Your task to perform on an android device: turn on javascript in the chrome app Image 0: 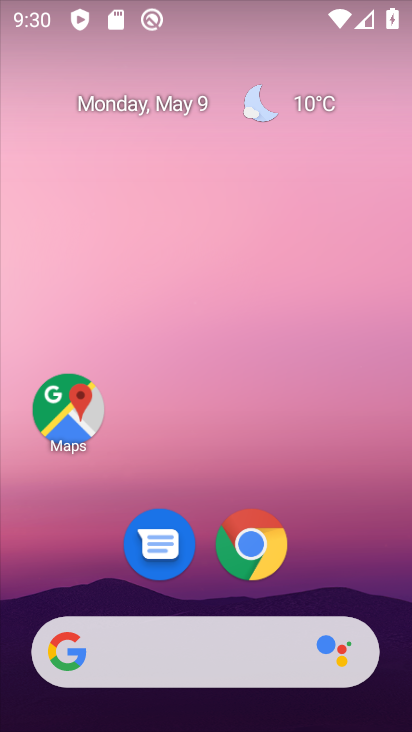
Step 0: click (261, 551)
Your task to perform on an android device: turn on javascript in the chrome app Image 1: 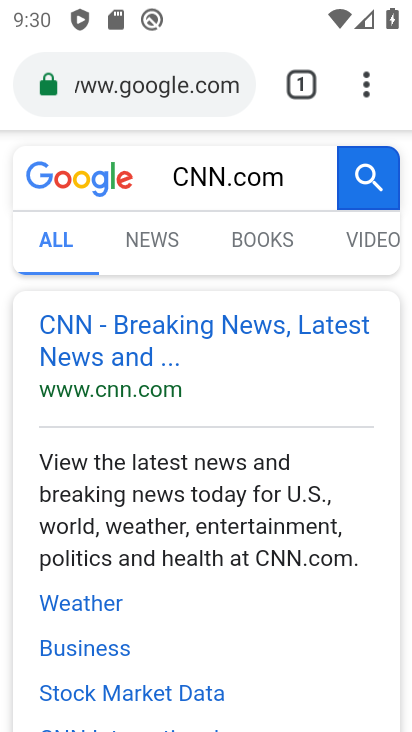
Step 1: click (361, 76)
Your task to perform on an android device: turn on javascript in the chrome app Image 2: 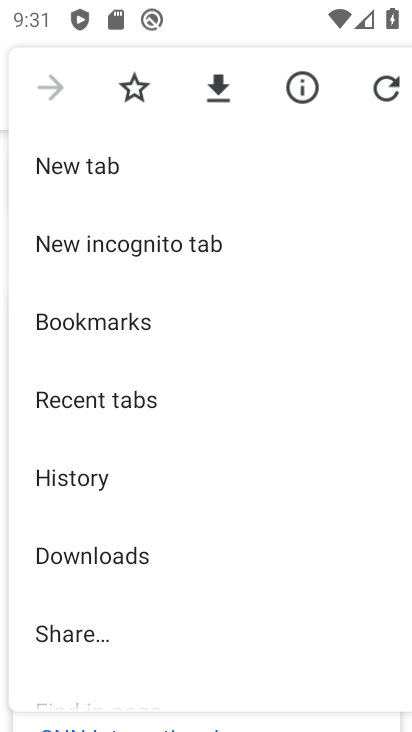
Step 2: drag from (262, 654) to (249, 382)
Your task to perform on an android device: turn on javascript in the chrome app Image 3: 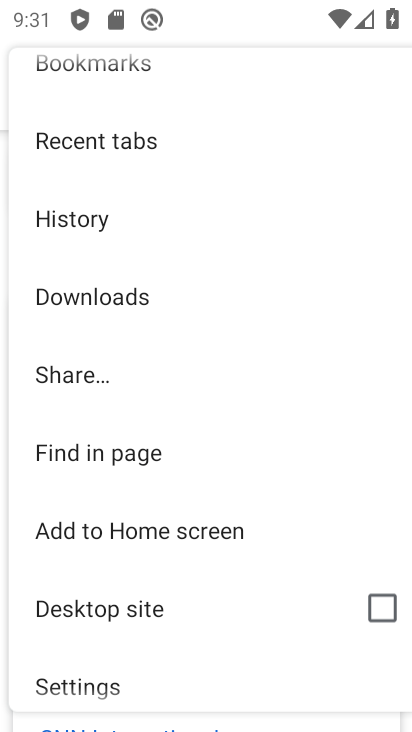
Step 3: click (88, 682)
Your task to perform on an android device: turn on javascript in the chrome app Image 4: 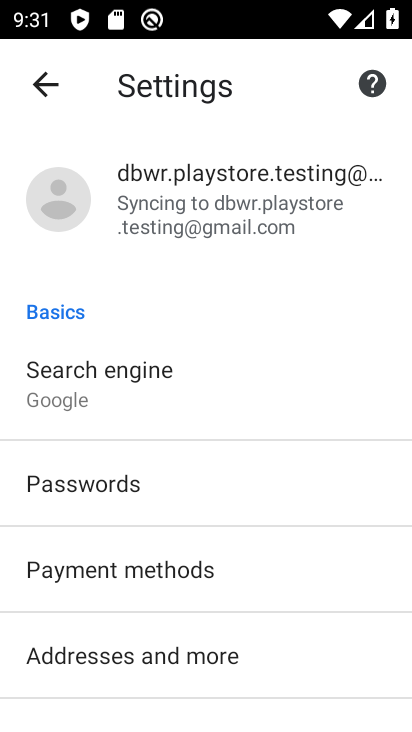
Step 4: drag from (331, 698) to (294, 396)
Your task to perform on an android device: turn on javascript in the chrome app Image 5: 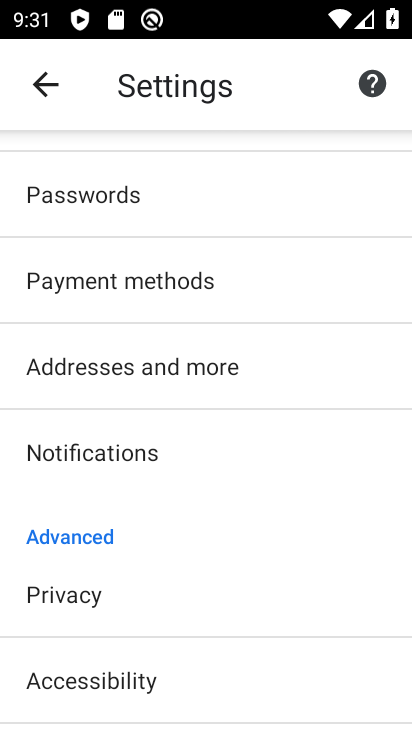
Step 5: drag from (308, 555) to (299, 391)
Your task to perform on an android device: turn on javascript in the chrome app Image 6: 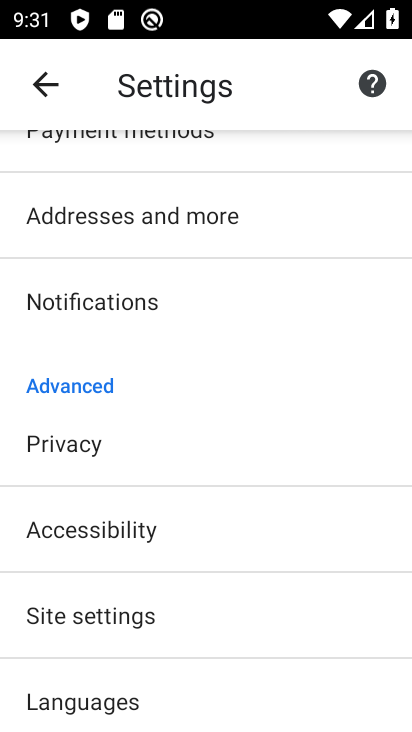
Step 6: click (129, 620)
Your task to perform on an android device: turn on javascript in the chrome app Image 7: 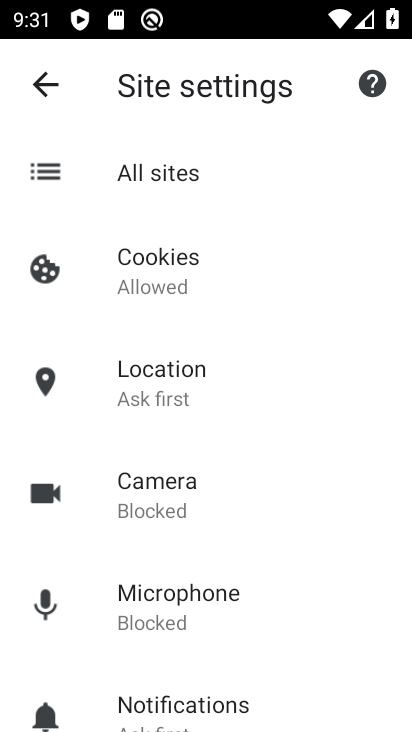
Step 7: drag from (312, 702) to (356, 451)
Your task to perform on an android device: turn on javascript in the chrome app Image 8: 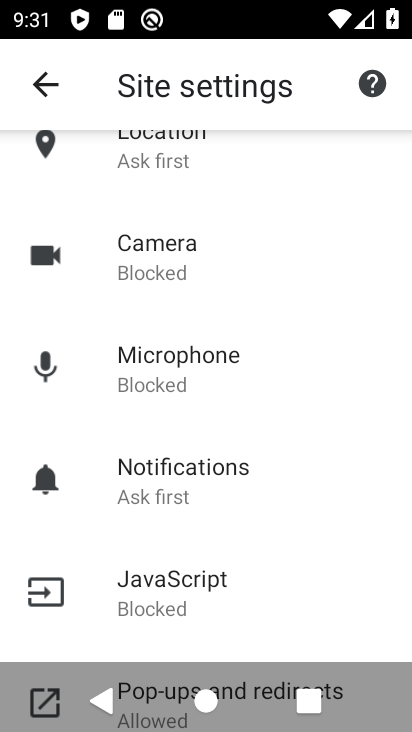
Step 8: click (180, 577)
Your task to perform on an android device: turn on javascript in the chrome app Image 9: 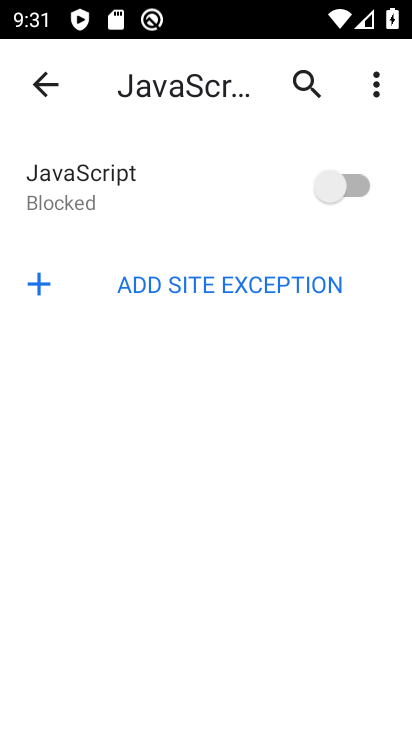
Step 9: click (348, 187)
Your task to perform on an android device: turn on javascript in the chrome app Image 10: 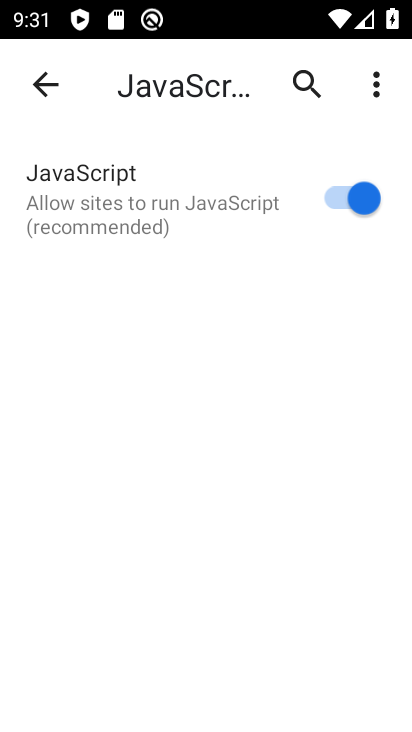
Step 10: task complete